Your task to perform on an android device: visit the assistant section in the google photos Image 0: 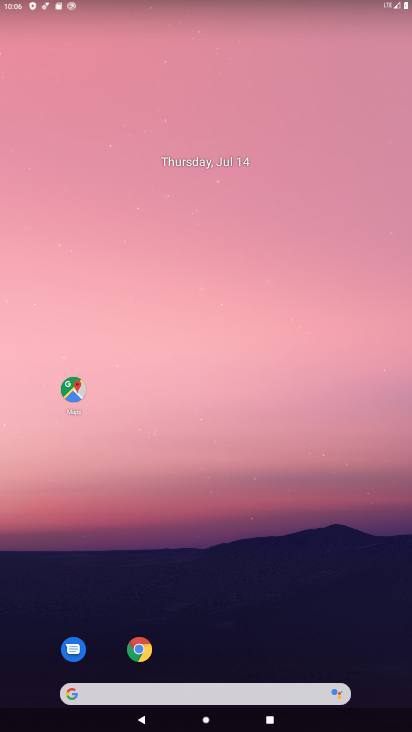
Step 0: drag from (204, 638) to (234, 171)
Your task to perform on an android device: visit the assistant section in the google photos Image 1: 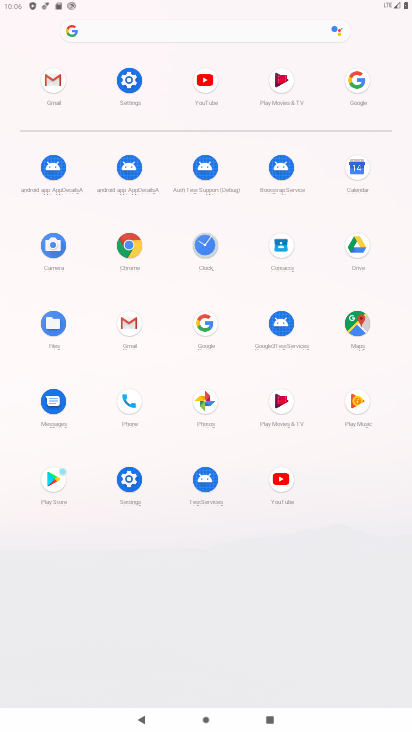
Step 1: click (206, 391)
Your task to perform on an android device: visit the assistant section in the google photos Image 2: 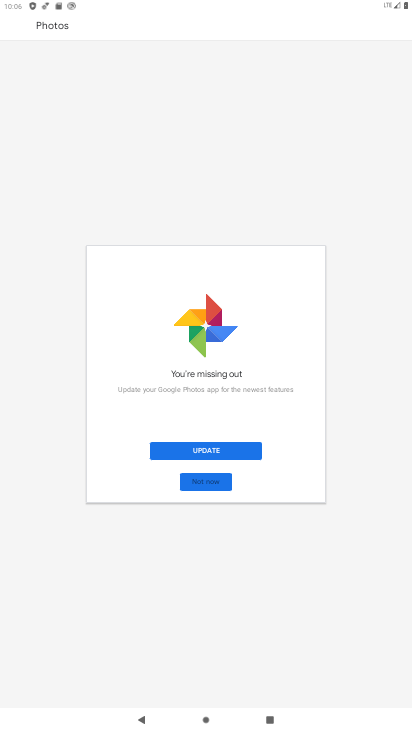
Step 2: click (215, 473)
Your task to perform on an android device: visit the assistant section in the google photos Image 3: 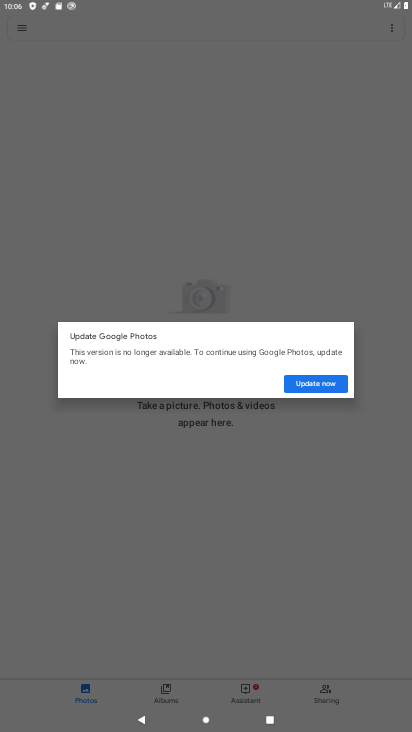
Step 3: click (239, 699)
Your task to perform on an android device: visit the assistant section in the google photos Image 4: 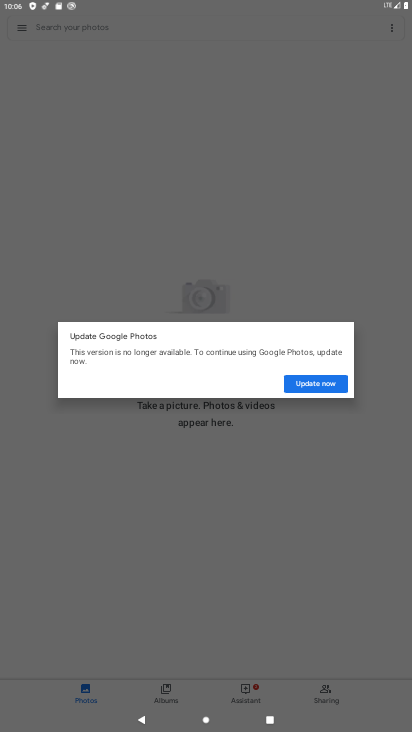
Step 4: click (244, 698)
Your task to perform on an android device: visit the assistant section in the google photos Image 5: 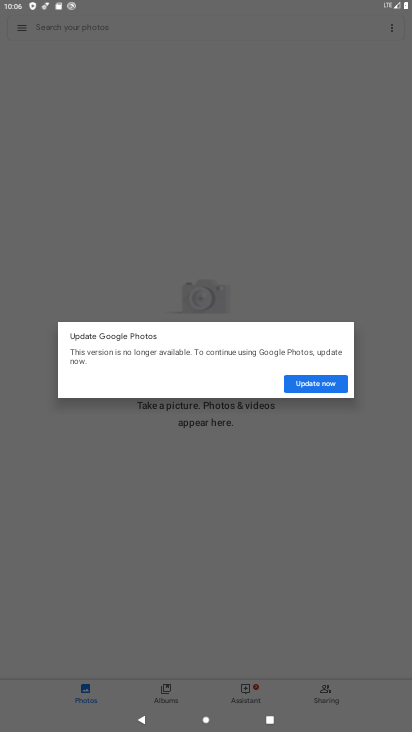
Step 5: click (316, 382)
Your task to perform on an android device: visit the assistant section in the google photos Image 6: 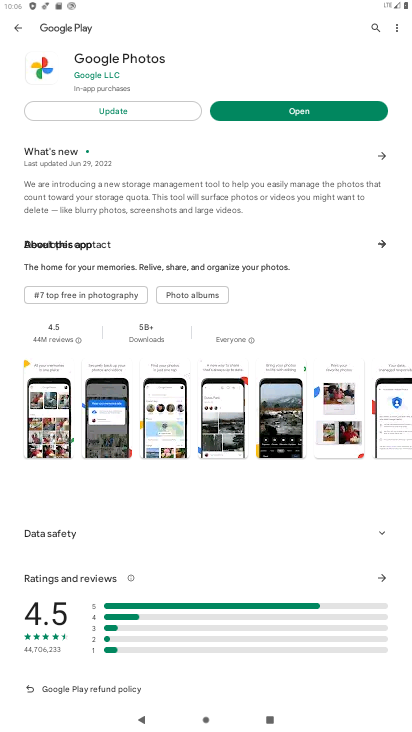
Step 6: click (306, 115)
Your task to perform on an android device: visit the assistant section in the google photos Image 7: 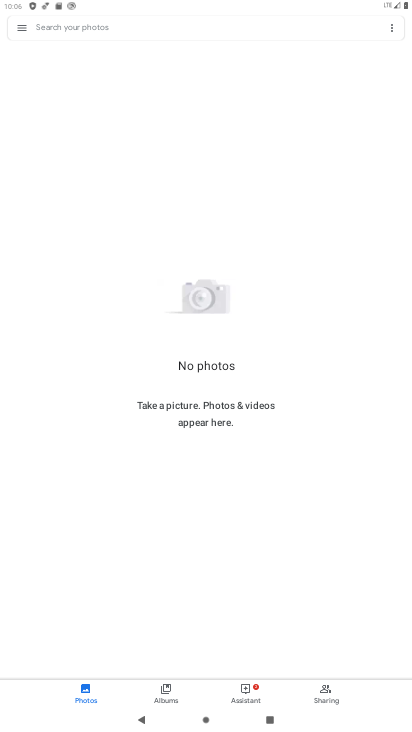
Step 7: click (241, 690)
Your task to perform on an android device: visit the assistant section in the google photos Image 8: 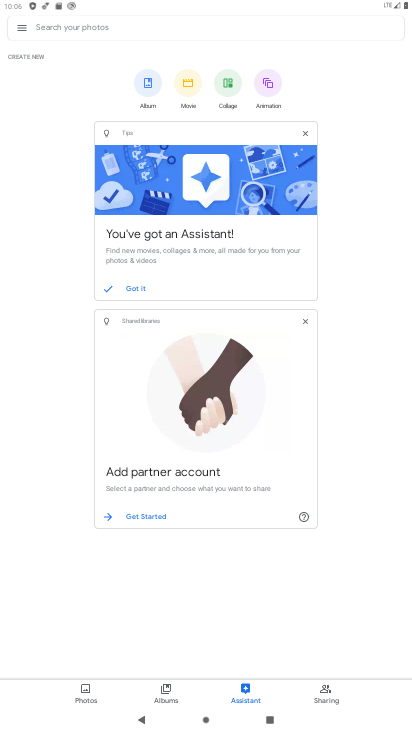
Step 8: task complete